Your task to perform on an android device: Open calendar and show me the fourth week of next month Image 0: 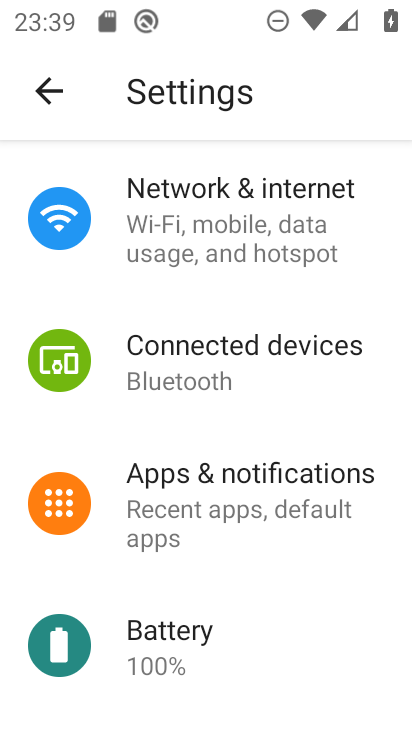
Step 0: press home button
Your task to perform on an android device: Open calendar and show me the fourth week of next month Image 1: 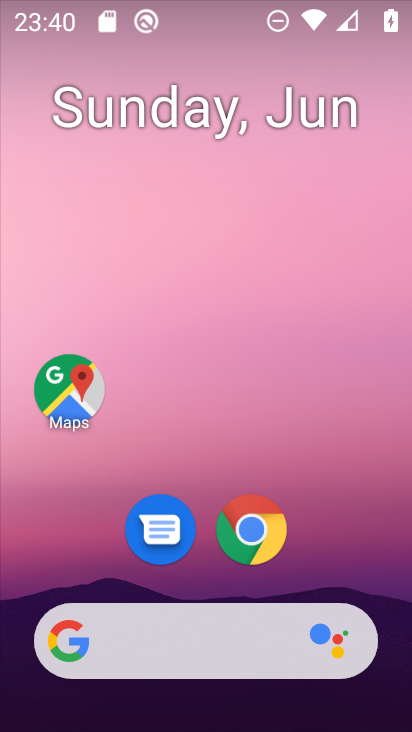
Step 1: drag from (396, 638) to (303, 35)
Your task to perform on an android device: Open calendar and show me the fourth week of next month Image 2: 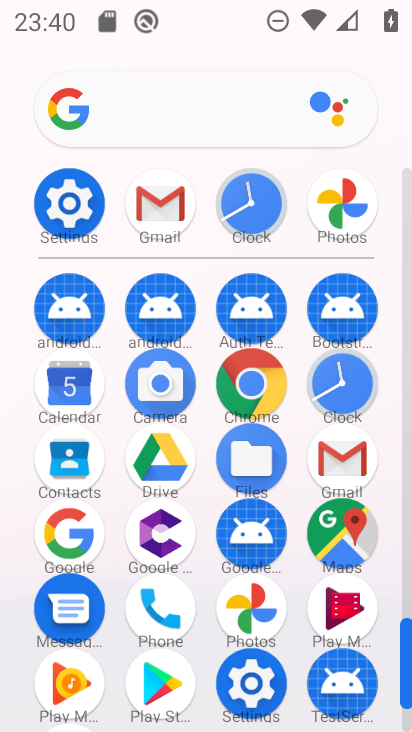
Step 2: click (68, 386)
Your task to perform on an android device: Open calendar and show me the fourth week of next month Image 3: 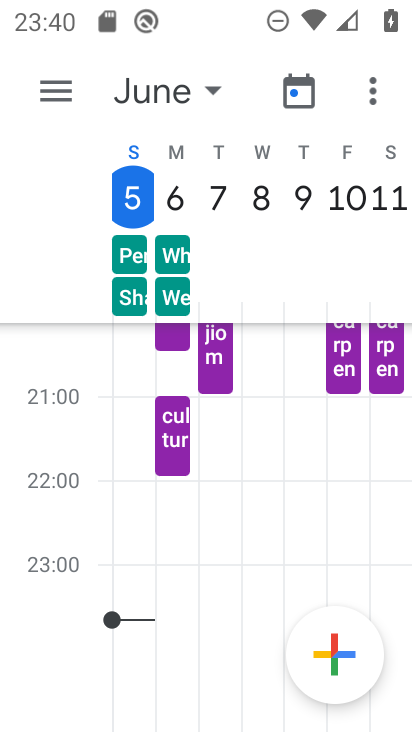
Step 3: click (214, 87)
Your task to perform on an android device: Open calendar and show me the fourth week of next month Image 4: 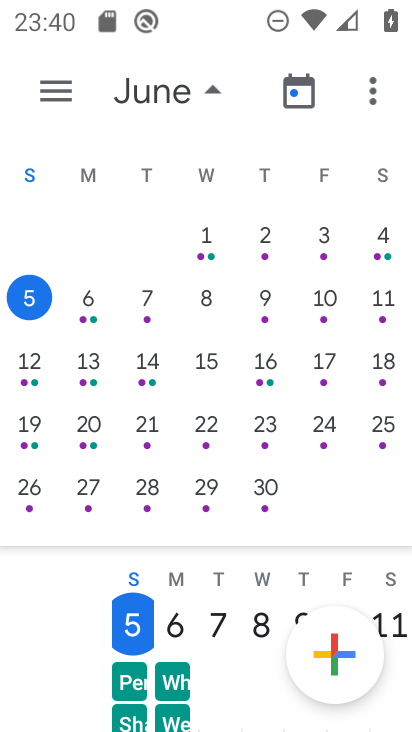
Step 4: drag from (377, 357) to (31, 380)
Your task to perform on an android device: Open calendar and show me the fourth week of next month Image 5: 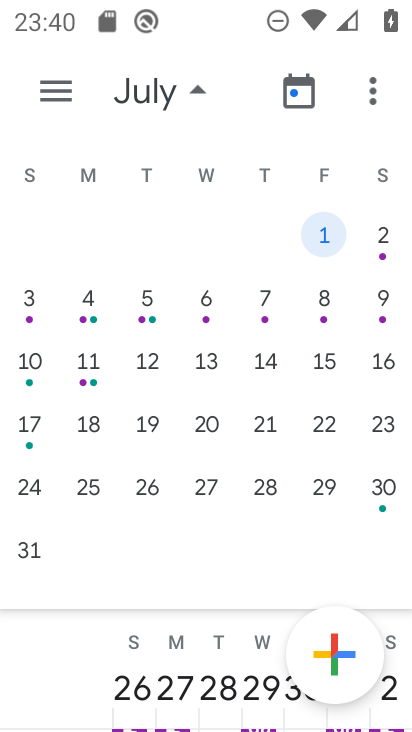
Step 5: click (29, 482)
Your task to perform on an android device: Open calendar and show me the fourth week of next month Image 6: 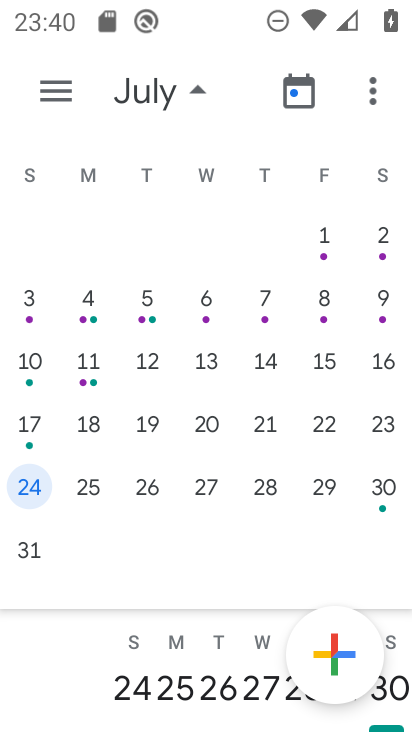
Step 6: drag from (248, 636) to (174, 153)
Your task to perform on an android device: Open calendar and show me the fourth week of next month Image 7: 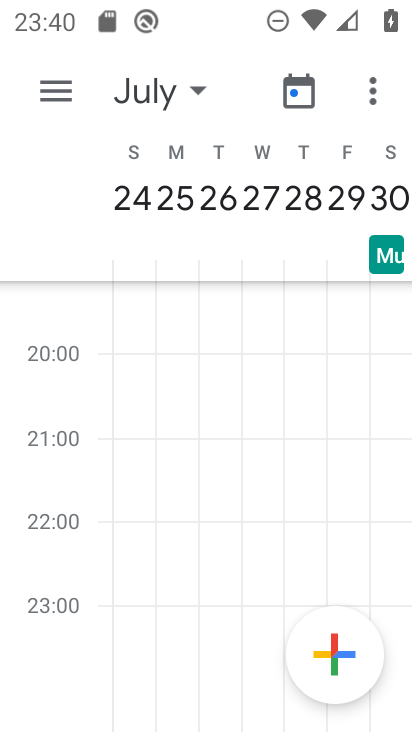
Step 7: click (210, 557)
Your task to perform on an android device: Open calendar and show me the fourth week of next month Image 8: 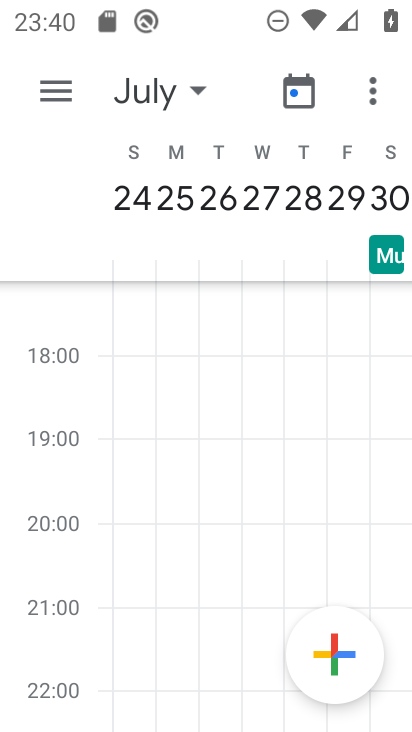
Step 8: task complete